Your task to perform on an android device: turn on notifications settings in the gmail app Image 0: 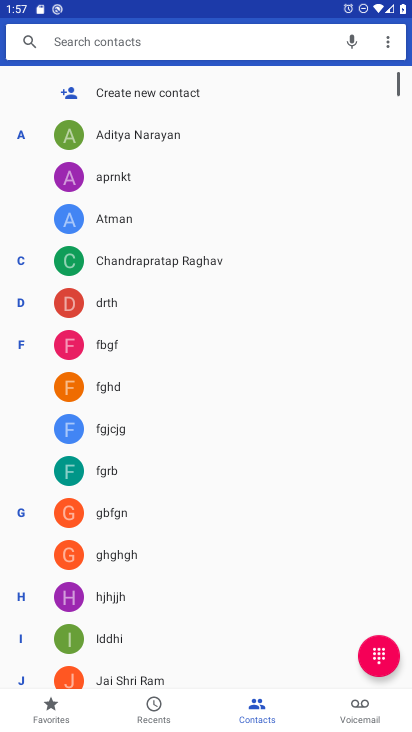
Step 0: press home button
Your task to perform on an android device: turn on notifications settings in the gmail app Image 1: 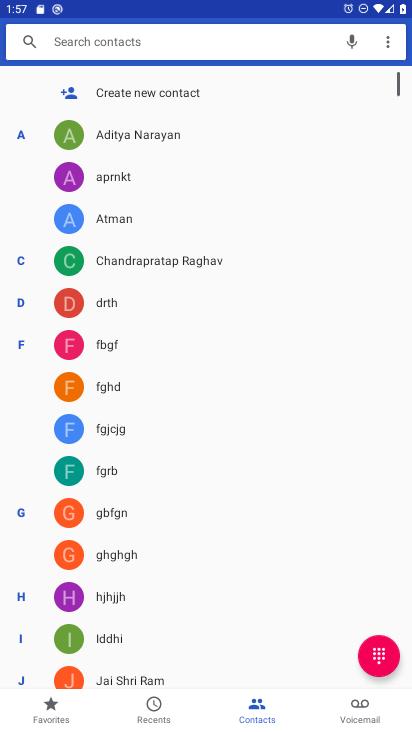
Step 1: press home button
Your task to perform on an android device: turn on notifications settings in the gmail app Image 2: 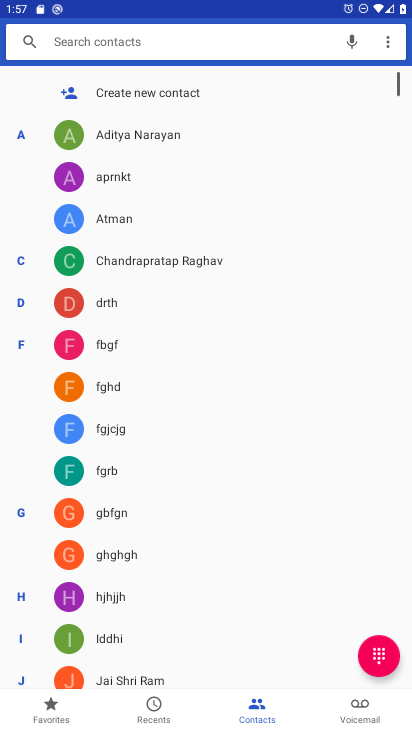
Step 2: drag from (235, 583) to (294, 186)
Your task to perform on an android device: turn on notifications settings in the gmail app Image 3: 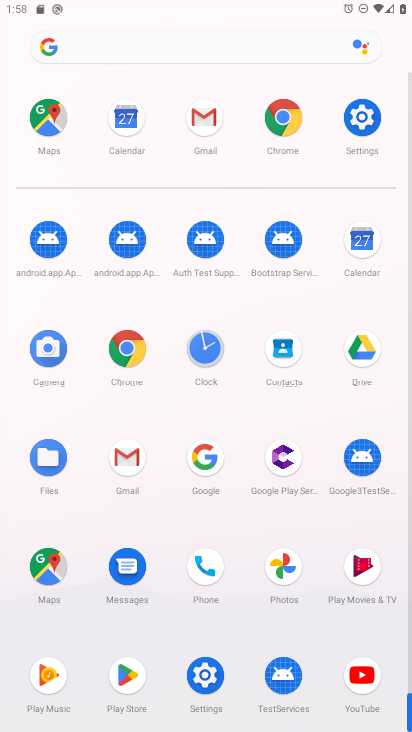
Step 3: click (119, 454)
Your task to perform on an android device: turn on notifications settings in the gmail app Image 4: 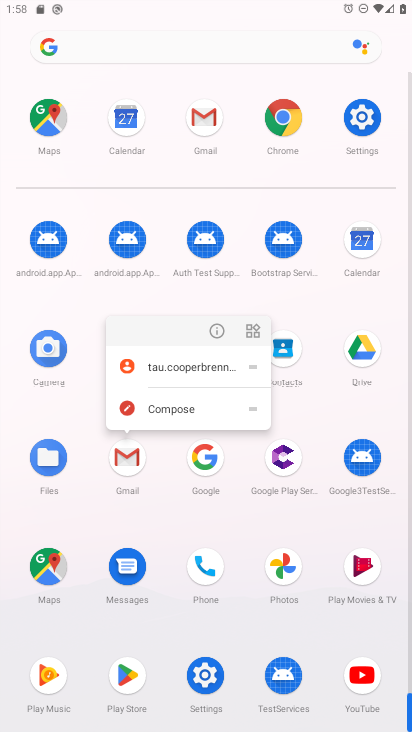
Step 4: click (216, 326)
Your task to perform on an android device: turn on notifications settings in the gmail app Image 5: 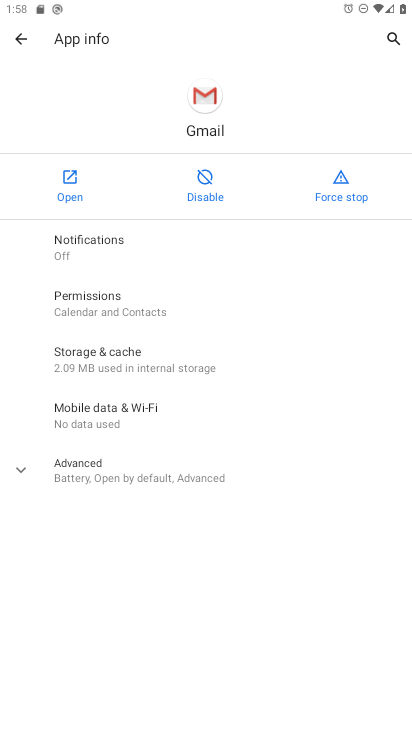
Step 5: click (77, 172)
Your task to perform on an android device: turn on notifications settings in the gmail app Image 6: 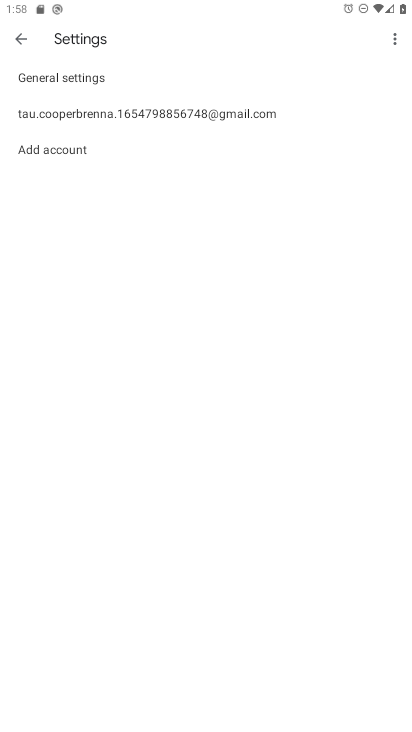
Step 6: click (197, 111)
Your task to perform on an android device: turn on notifications settings in the gmail app Image 7: 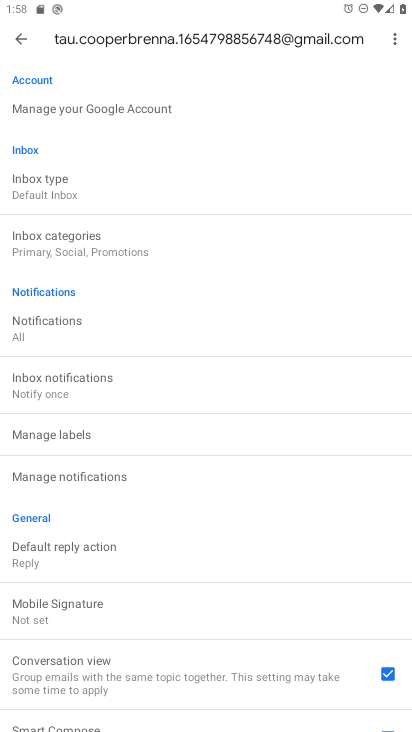
Step 7: click (113, 471)
Your task to perform on an android device: turn on notifications settings in the gmail app Image 8: 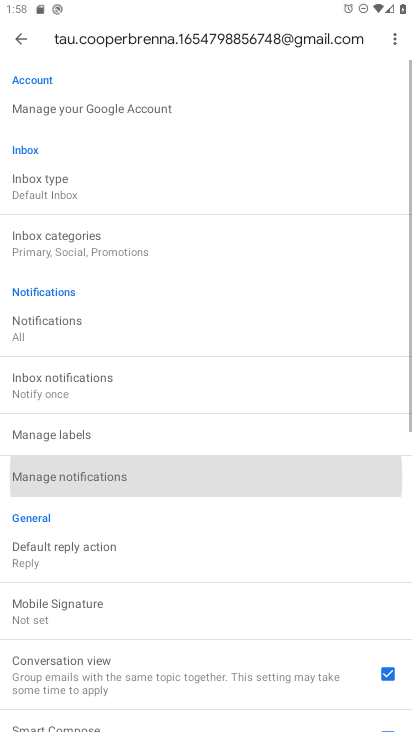
Step 8: click (113, 471)
Your task to perform on an android device: turn on notifications settings in the gmail app Image 9: 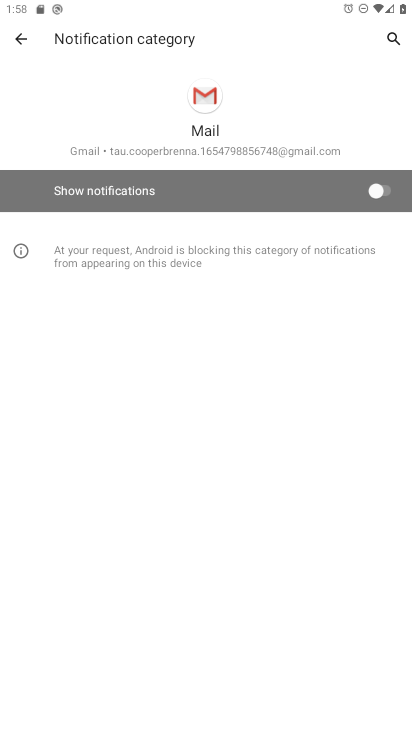
Step 9: click (305, 206)
Your task to perform on an android device: turn on notifications settings in the gmail app Image 10: 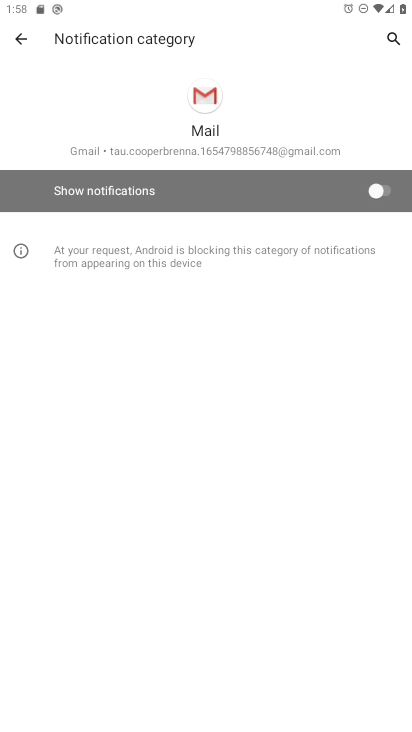
Step 10: click (374, 193)
Your task to perform on an android device: turn on notifications settings in the gmail app Image 11: 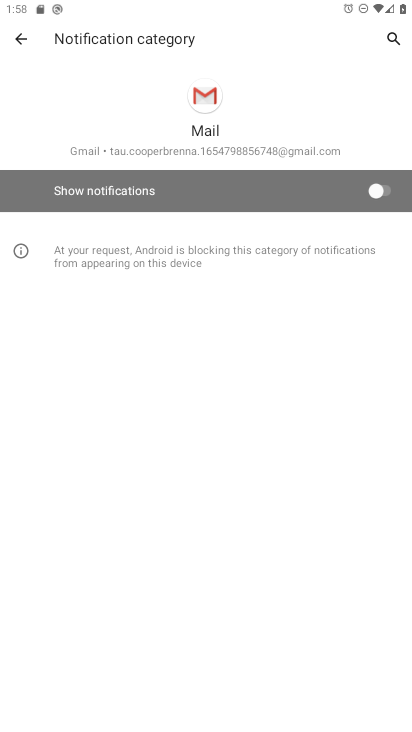
Step 11: click (377, 195)
Your task to perform on an android device: turn on notifications settings in the gmail app Image 12: 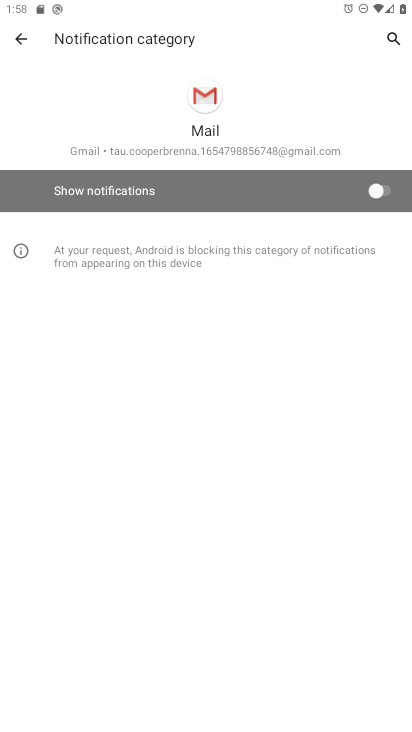
Step 12: click (377, 195)
Your task to perform on an android device: turn on notifications settings in the gmail app Image 13: 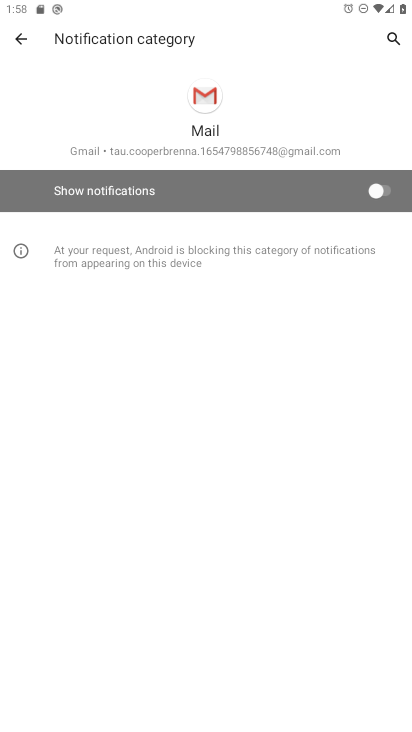
Step 13: click (135, 236)
Your task to perform on an android device: turn on notifications settings in the gmail app Image 14: 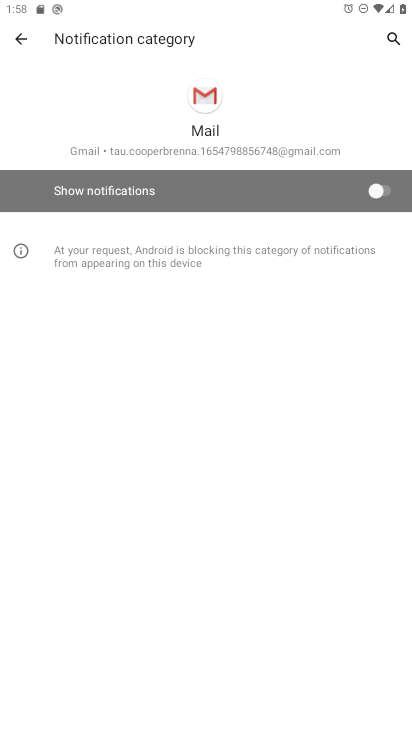
Step 14: click (134, 256)
Your task to perform on an android device: turn on notifications settings in the gmail app Image 15: 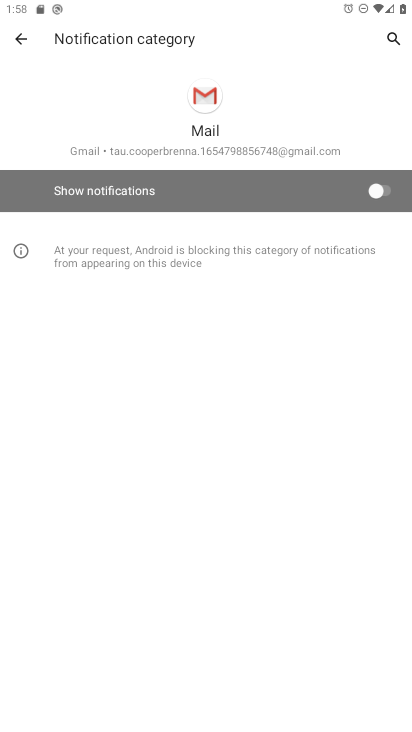
Step 15: click (134, 256)
Your task to perform on an android device: turn on notifications settings in the gmail app Image 16: 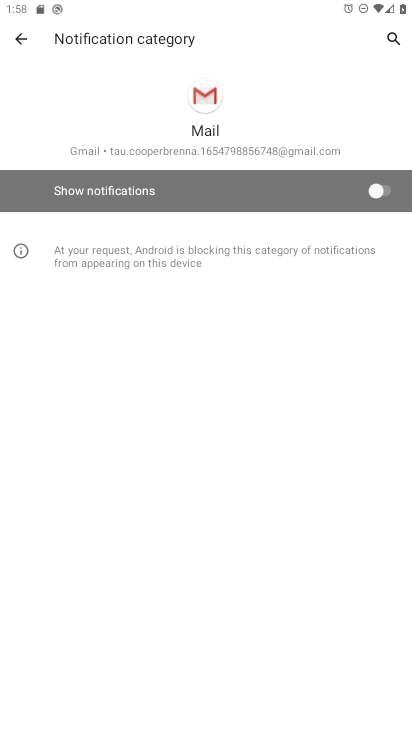
Step 16: click (108, 259)
Your task to perform on an android device: turn on notifications settings in the gmail app Image 17: 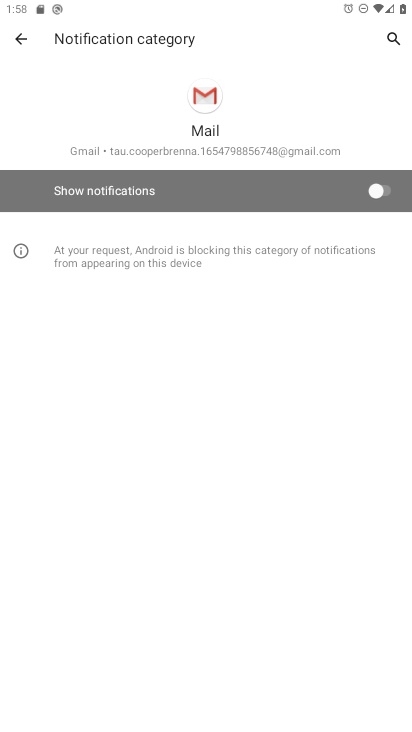
Step 17: task complete